Your task to perform on an android device: manage bookmarks in the chrome app Image 0: 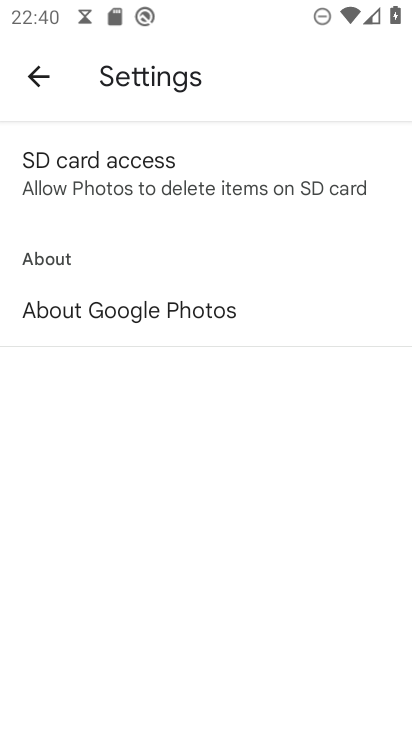
Step 0: press home button
Your task to perform on an android device: manage bookmarks in the chrome app Image 1: 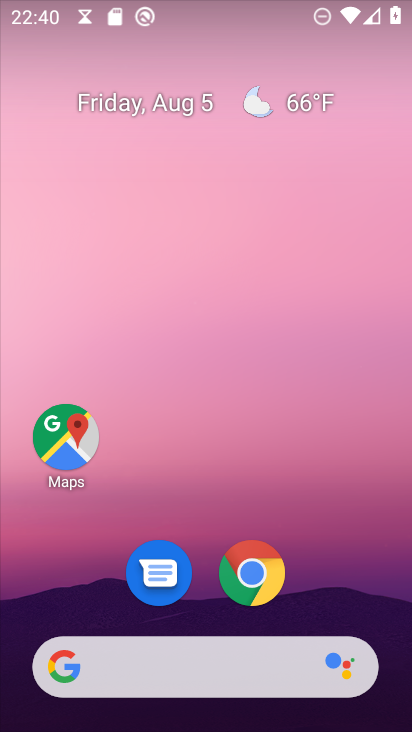
Step 1: click (250, 570)
Your task to perform on an android device: manage bookmarks in the chrome app Image 2: 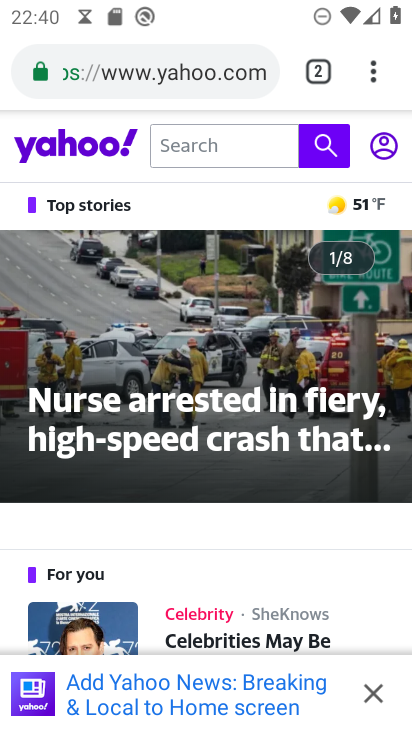
Step 2: click (373, 71)
Your task to perform on an android device: manage bookmarks in the chrome app Image 3: 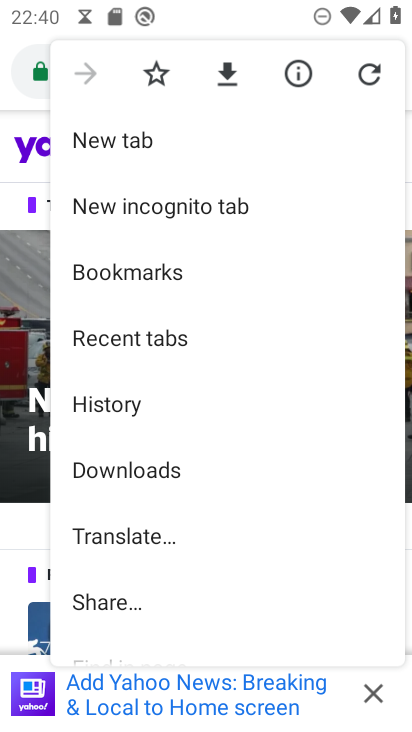
Step 3: click (161, 279)
Your task to perform on an android device: manage bookmarks in the chrome app Image 4: 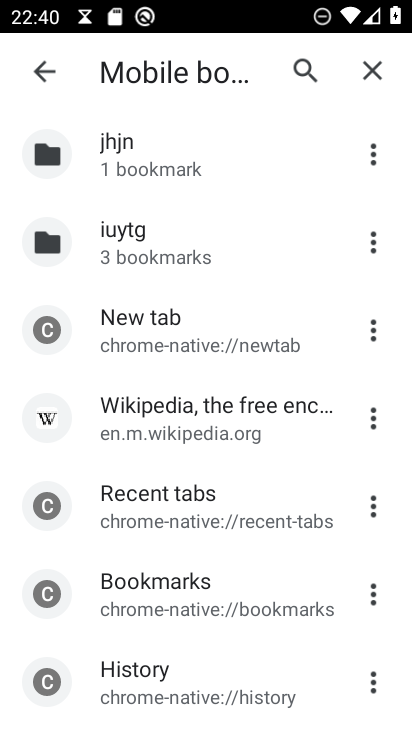
Step 4: click (371, 157)
Your task to perform on an android device: manage bookmarks in the chrome app Image 5: 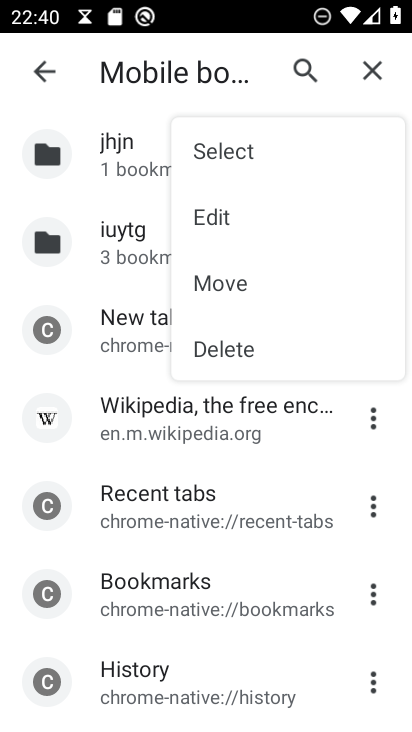
Step 5: click (227, 287)
Your task to perform on an android device: manage bookmarks in the chrome app Image 6: 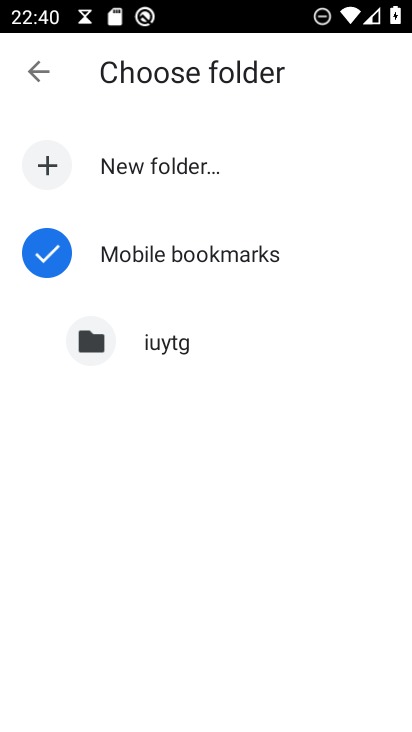
Step 6: click (160, 348)
Your task to perform on an android device: manage bookmarks in the chrome app Image 7: 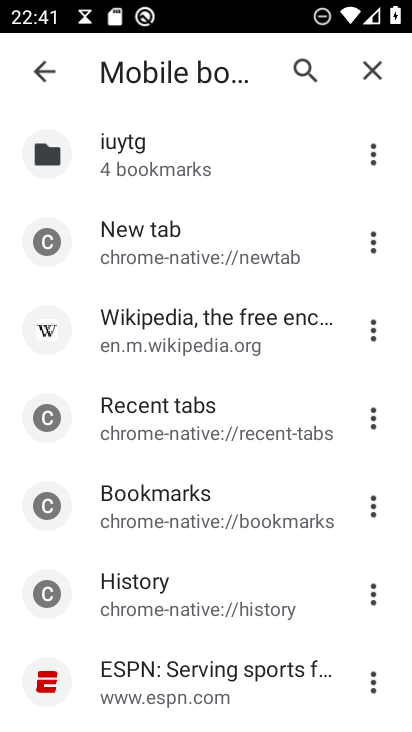
Step 7: task complete